Your task to perform on an android device: When is my next appointment? Image 0: 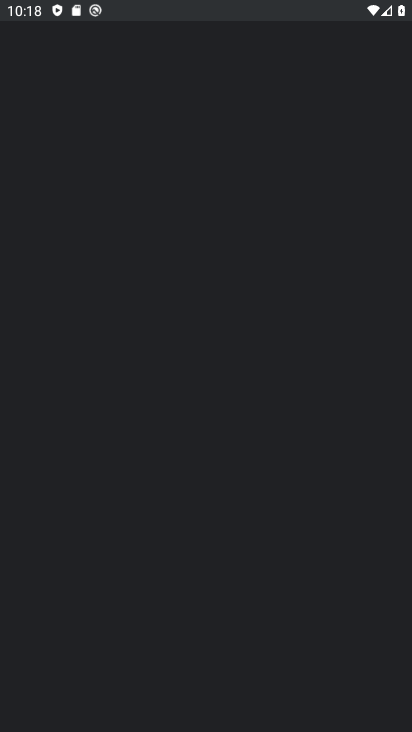
Step 0: drag from (252, 514) to (256, 249)
Your task to perform on an android device: When is my next appointment? Image 1: 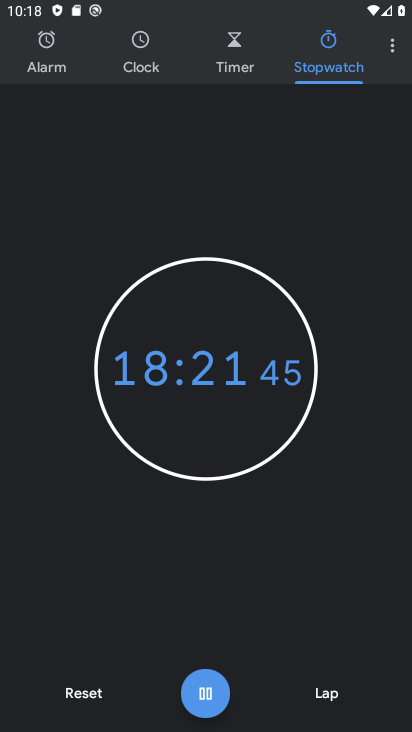
Step 1: press home button
Your task to perform on an android device: When is my next appointment? Image 2: 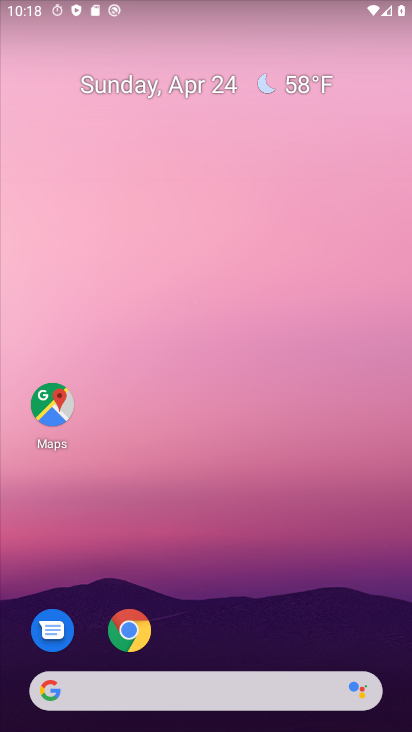
Step 2: drag from (230, 616) to (225, 287)
Your task to perform on an android device: When is my next appointment? Image 3: 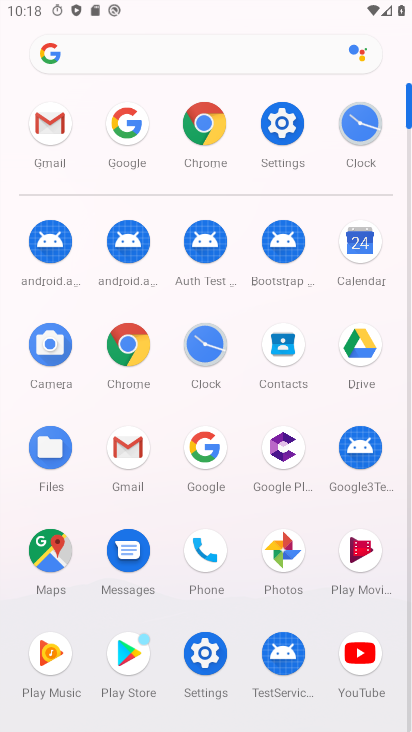
Step 3: click (357, 248)
Your task to perform on an android device: When is my next appointment? Image 4: 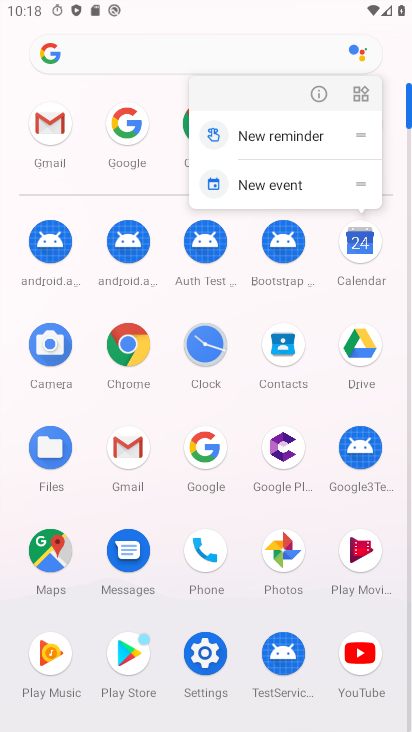
Step 4: click (361, 279)
Your task to perform on an android device: When is my next appointment? Image 5: 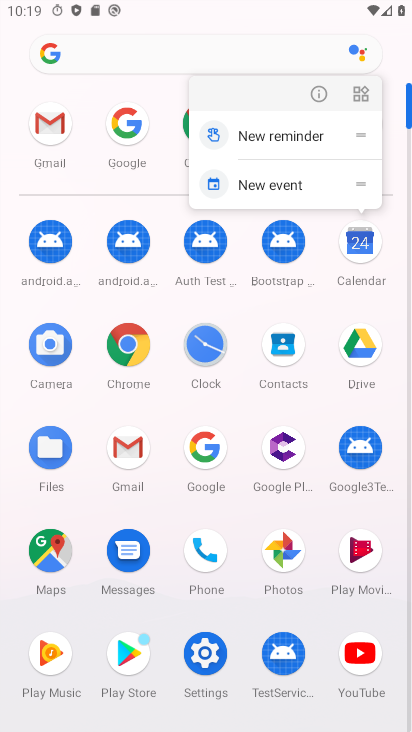
Step 5: click (365, 274)
Your task to perform on an android device: When is my next appointment? Image 6: 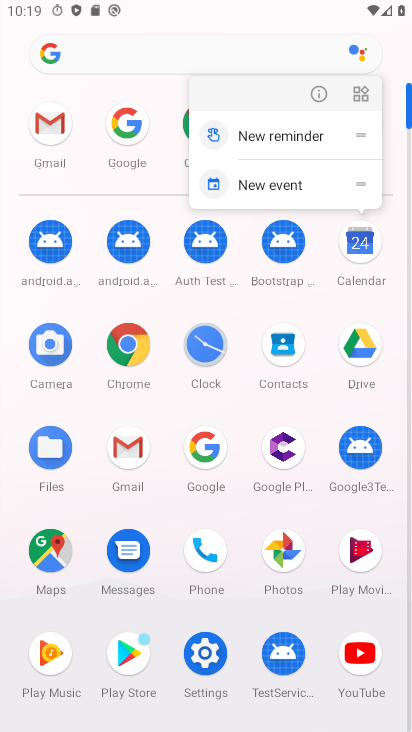
Step 6: click (373, 248)
Your task to perform on an android device: When is my next appointment? Image 7: 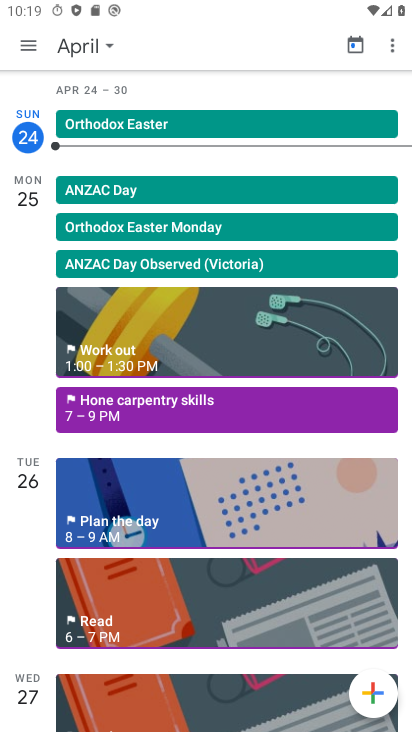
Step 7: task complete